Your task to perform on an android device: add a contact Image 0: 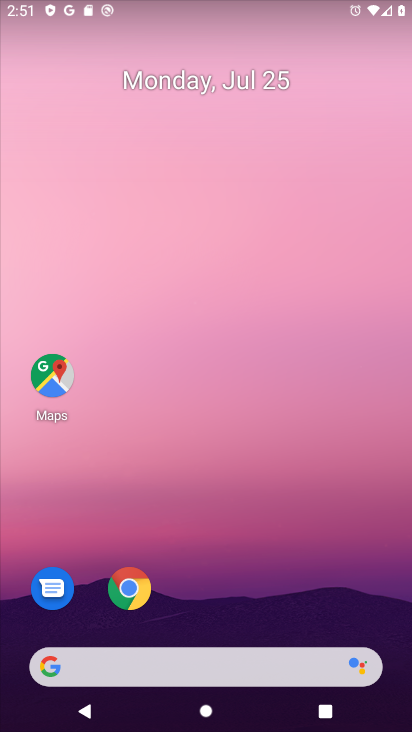
Step 0: press home button
Your task to perform on an android device: add a contact Image 1: 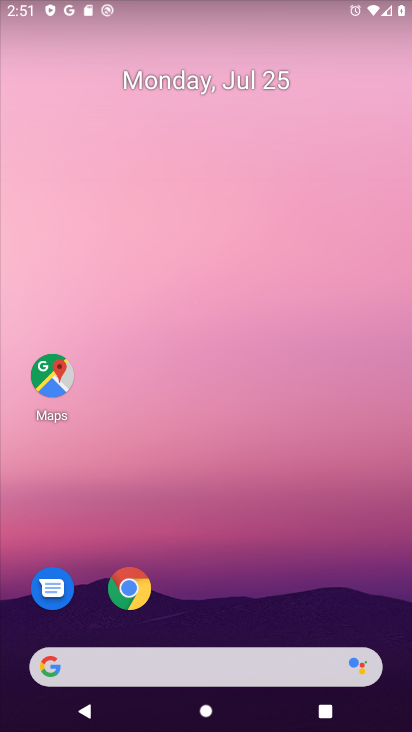
Step 1: drag from (228, 633) to (252, 109)
Your task to perform on an android device: add a contact Image 2: 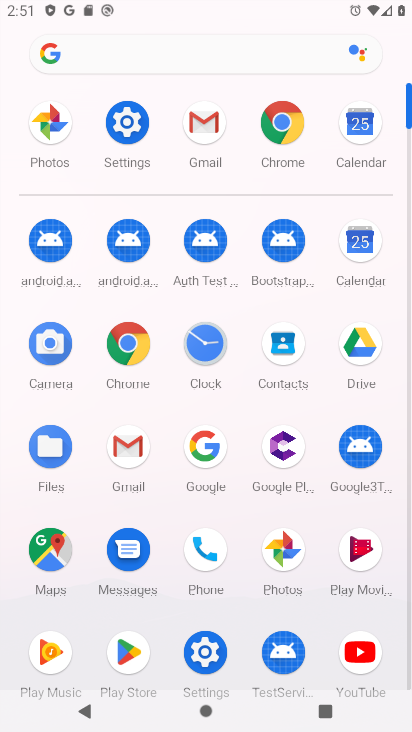
Step 2: click (281, 337)
Your task to perform on an android device: add a contact Image 3: 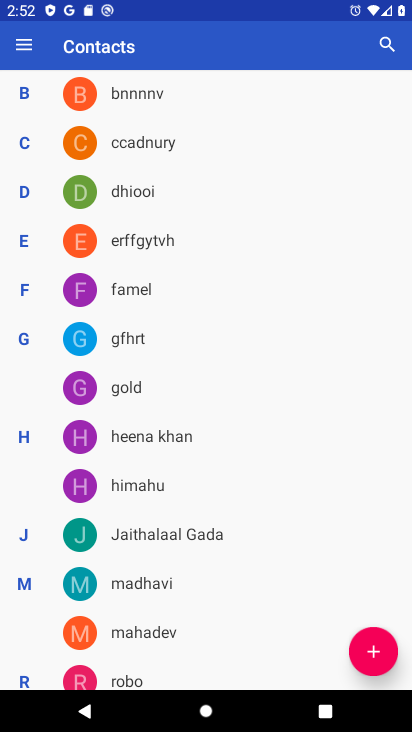
Step 3: click (371, 642)
Your task to perform on an android device: add a contact Image 4: 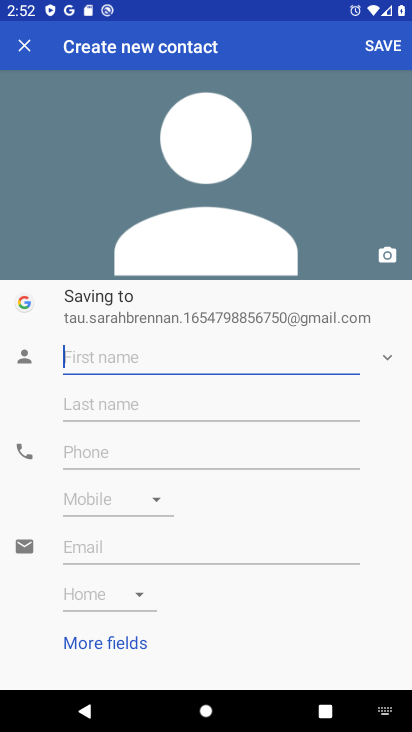
Step 4: type "ctdxrdf"
Your task to perform on an android device: add a contact Image 5: 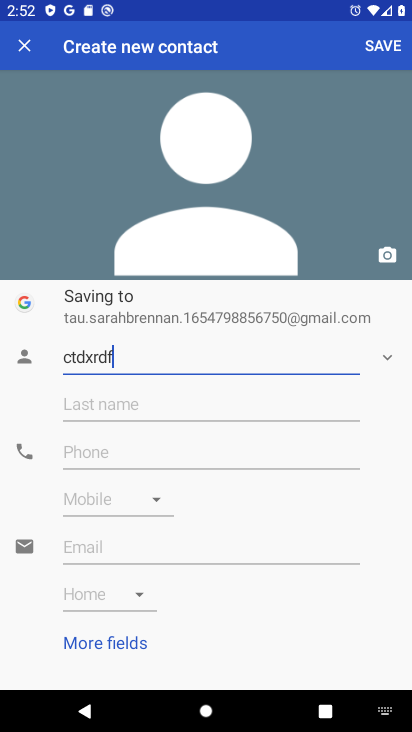
Step 5: click (387, 51)
Your task to perform on an android device: add a contact Image 6: 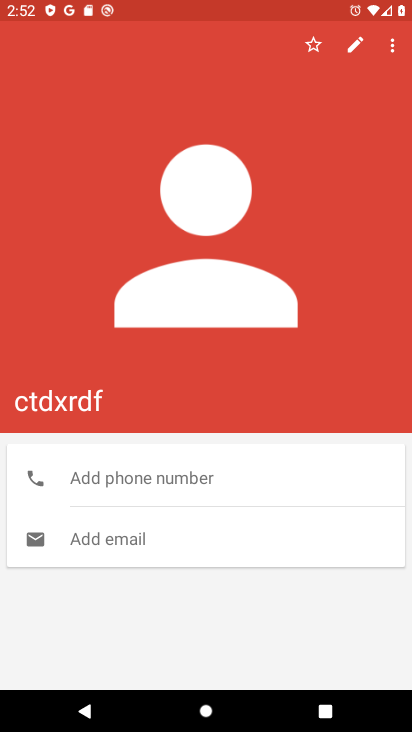
Step 6: task complete